Your task to perform on an android device: Go to internet settings Image 0: 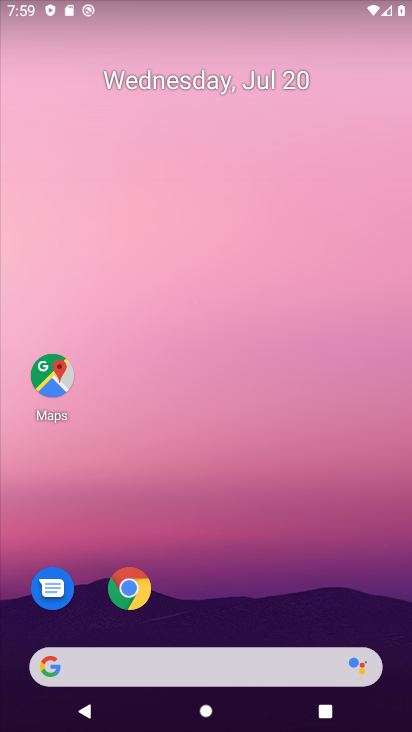
Step 0: drag from (51, 696) to (183, 197)
Your task to perform on an android device: Go to internet settings Image 1: 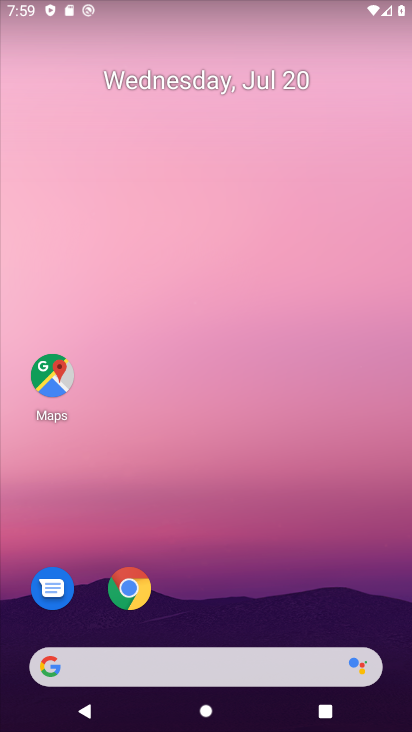
Step 1: drag from (55, 676) to (255, 5)
Your task to perform on an android device: Go to internet settings Image 2: 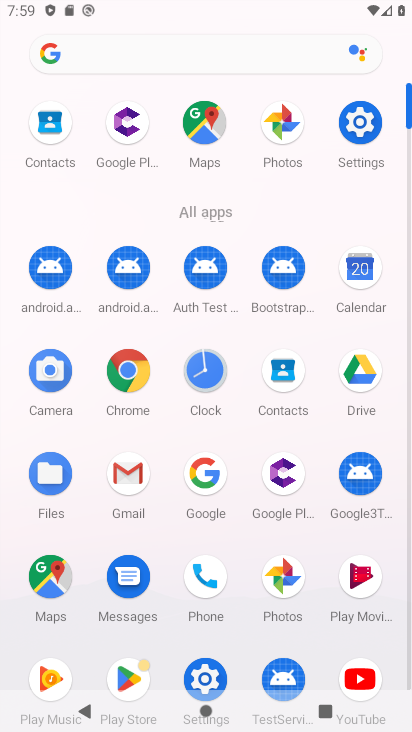
Step 2: click (217, 671)
Your task to perform on an android device: Go to internet settings Image 3: 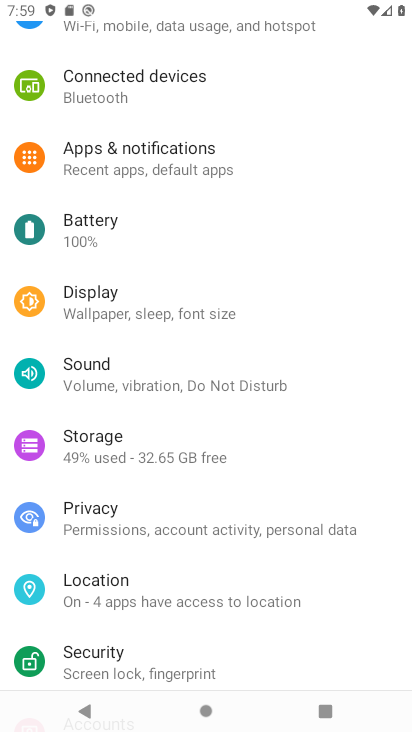
Step 3: drag from (243, 199) to (242, 463)
Your task to perform on an android device: Go to internet settings Image 4: 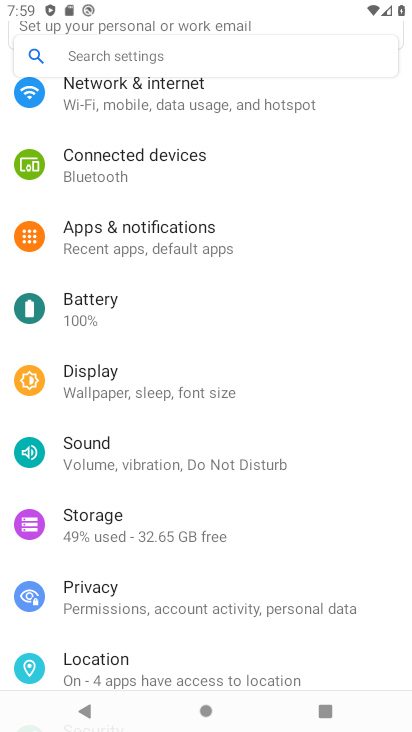
Step 4: click (175, 107)
Your task to perform on an android device: Go to internet settings Image 5: 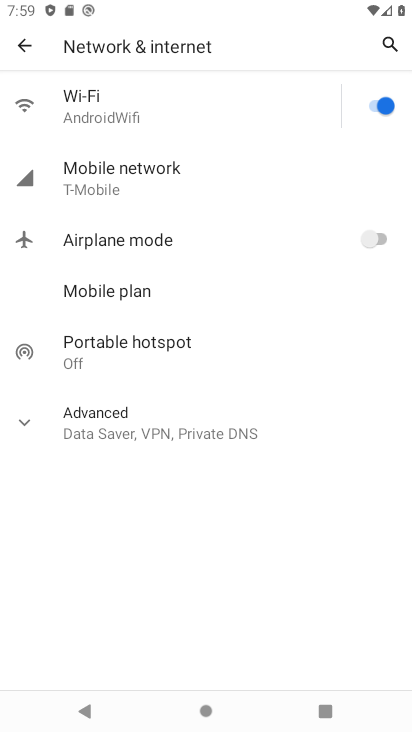
Step 5: task complete